Your task to perform on an android device: Search for Italian restaurants on Maps Image 0: 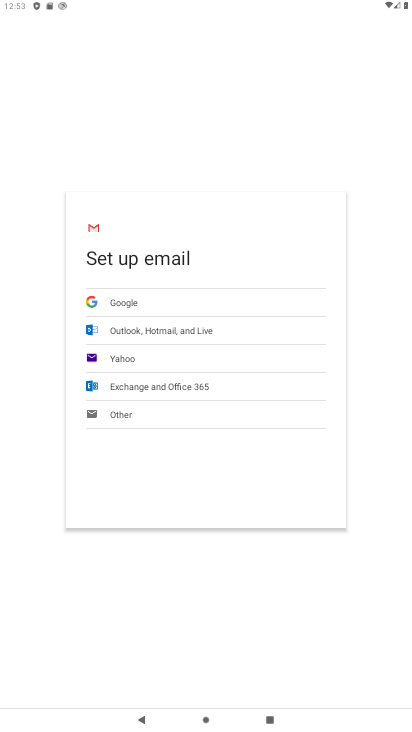
Step 0: press home button
Your task to perform on an android device: Search for Italian restaurants on Maps Image 1: 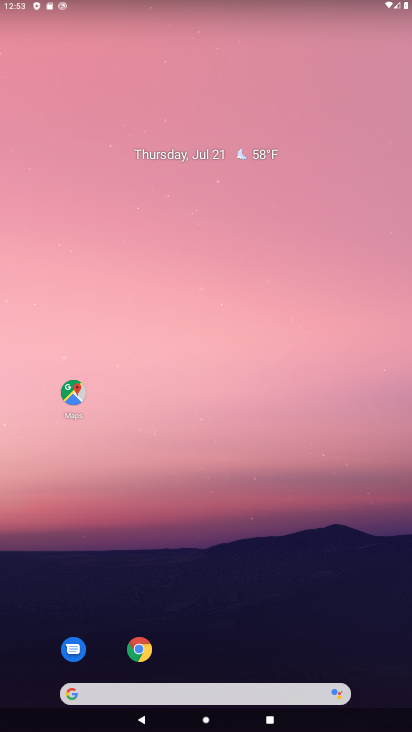
Step 1: click (83, 403)
Your task to perform on an android device: Search for Italian restaurants on Maps Image 2: 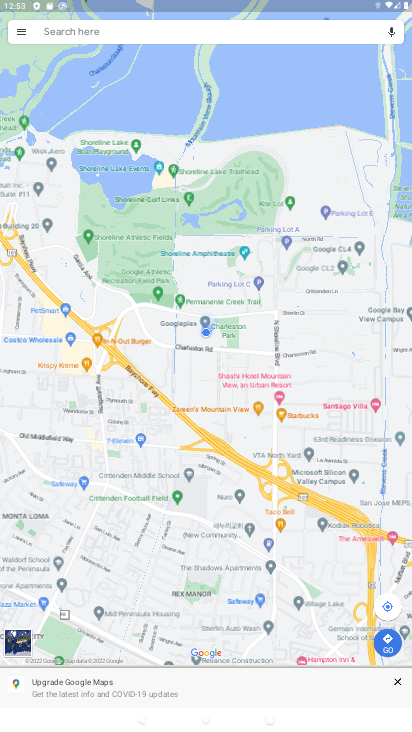
Step 2: click (84, 28)
Your task to perform on an android device: Search for Italian restaurants on Maps Image 3: 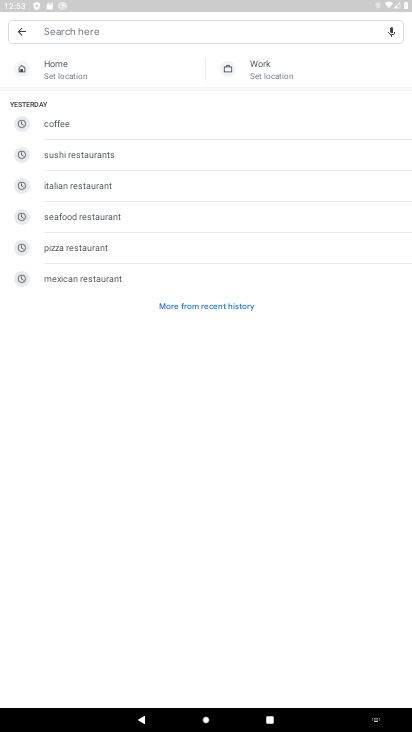
Step 3: type "italian"
Your task to perform on an android device: Search for Italian restaurants on Maps Image 4: 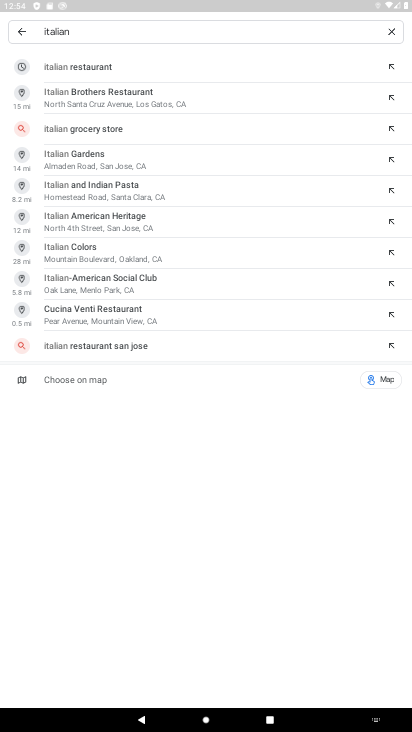
Step 4: click (164, 106)
Your task to perform on an android device: Search for Italian restaurants on Maps Image 5: 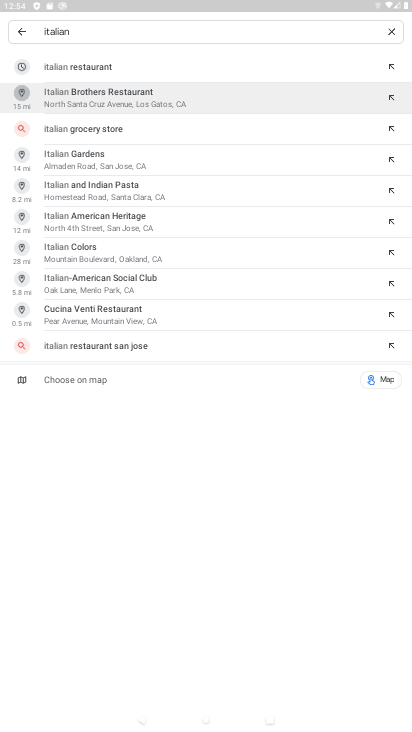
Step 5: task complete